Your task to perform on an android device: Open privacy settings Image 0: 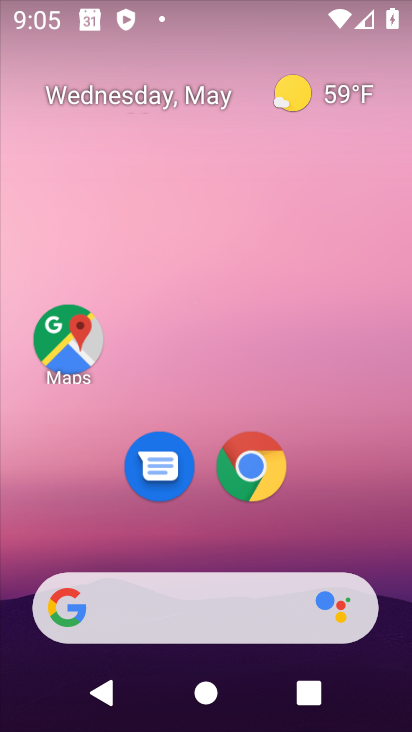
Step 0: drag from (347, 525) to (342, 311)
Your task to perform on an android device: Open privacy settings Image 1: 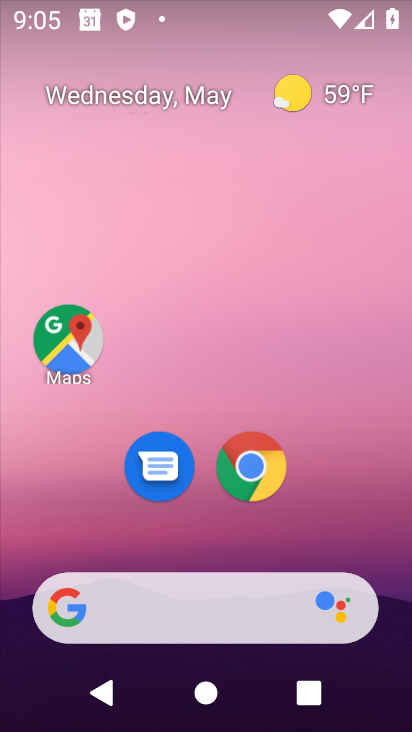
Step 1: drag from (345, 531) to (347, 77)
Your task to perform on an android device: Open privacy settings Image 2: 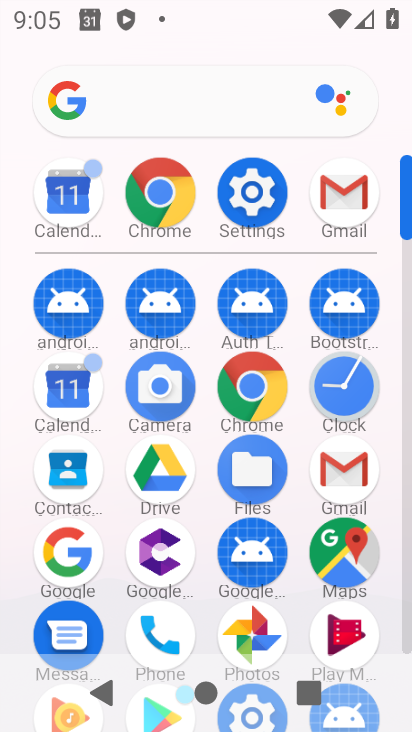
Step 2: click (240, 175)
Your task to perform on an android device: Open privacy settings Image 3: 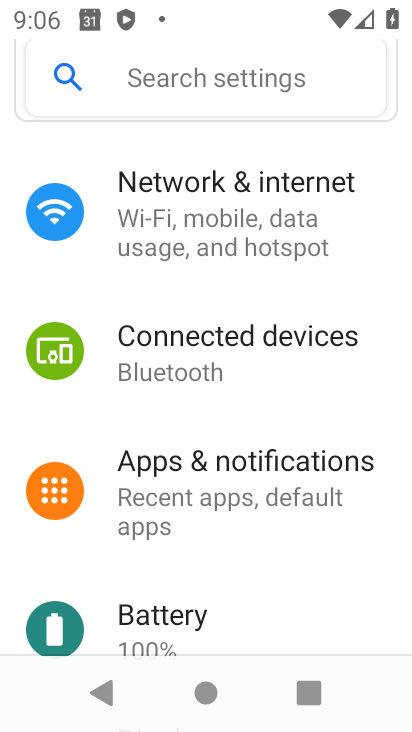
Step 3: drag from (312, 538) to (328, 85)
Your task to perform on an android device: Open privacy settings Image 4: 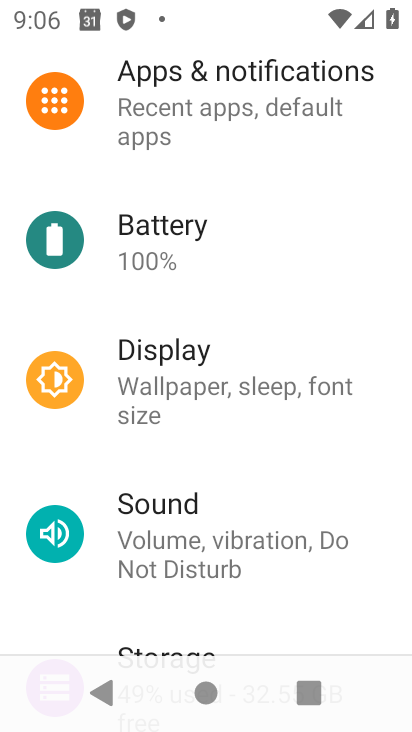
Step 4: drag from (221, 564) to (278, 192)
Your task to perform on an android device: Open privacy settings Image 5: 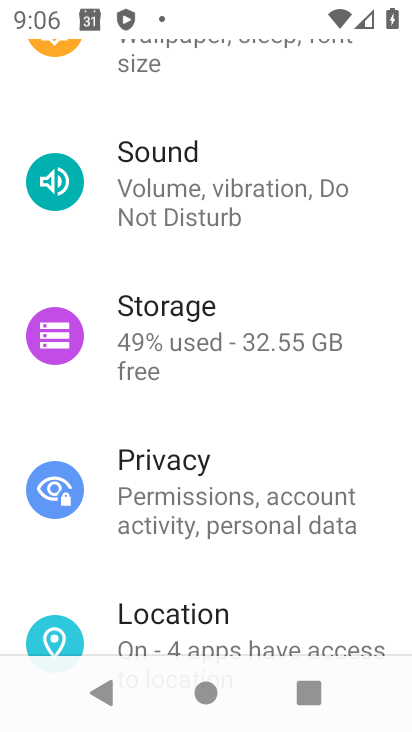
Step 5: drag from (245, 532) to (255, 241)
Your task to perform on an android device: Open privacy settings Image 6: 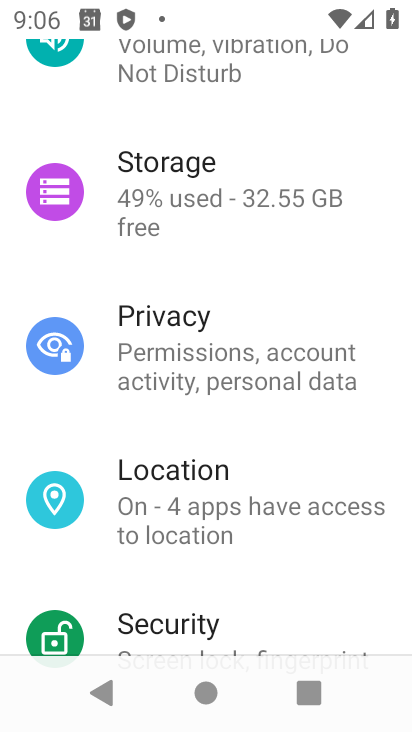
Step 6: drag from (191, 501) to (248, 309)
Your task to perform on an android device: Open privacy settings Image 7: 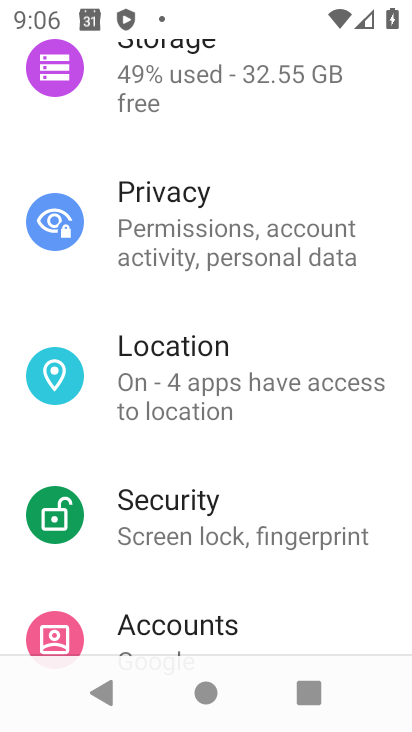
Step 7: click (220, 233)
Your task to perform on an android device: Open privacy settings Image 8: 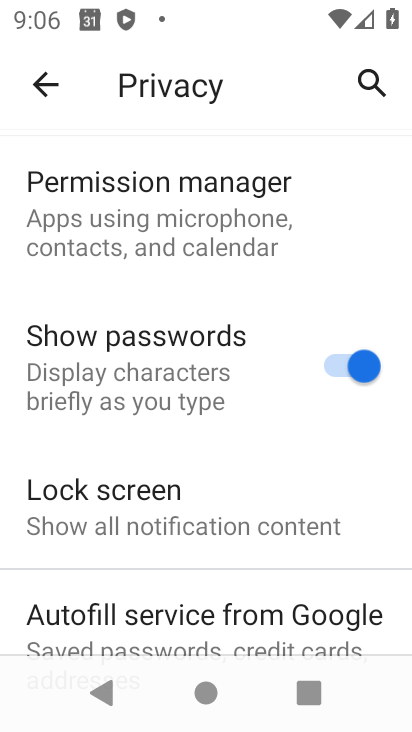
Step 8: task complete